Your task to perform on an android device: Open maps Image 0: 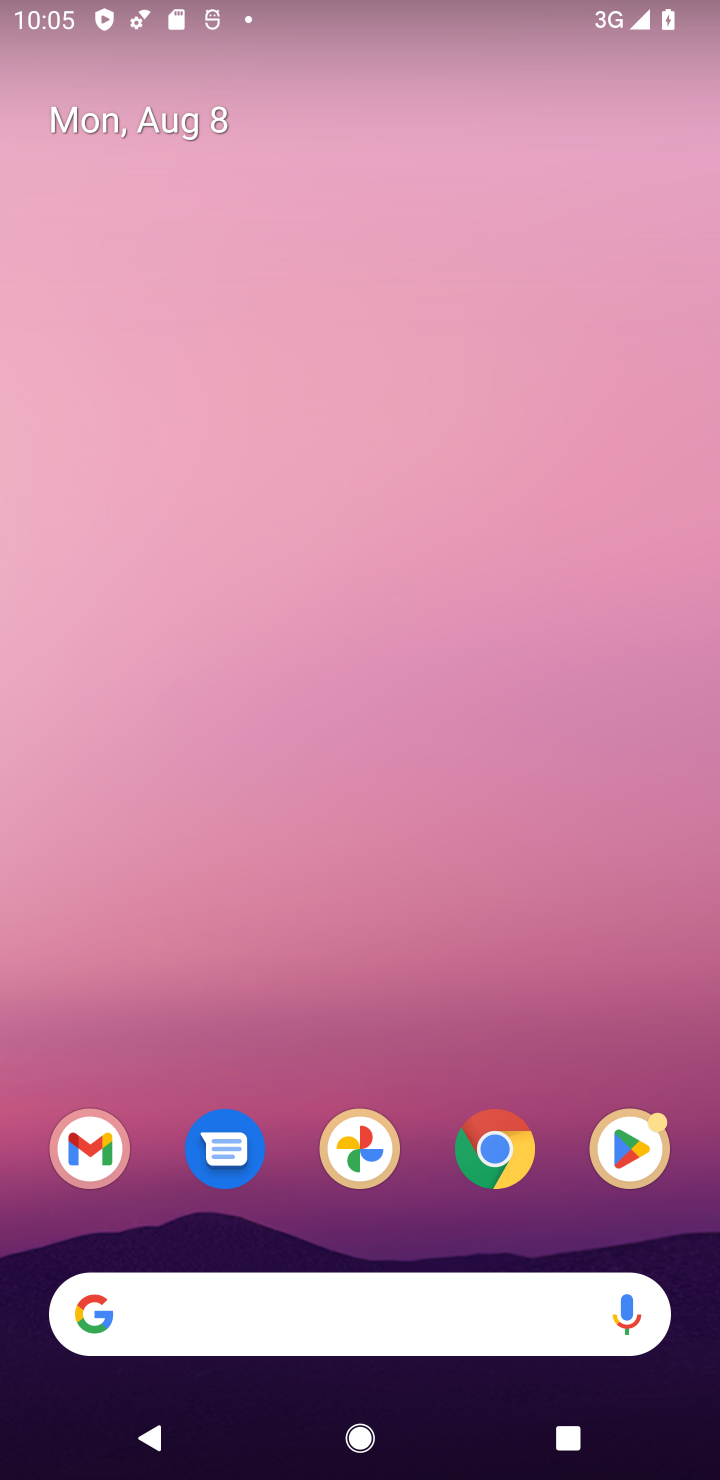
Step 0: drag from (362, 1083) to (267, 520)
Your task to perform on an android device: Open maps Image 1: 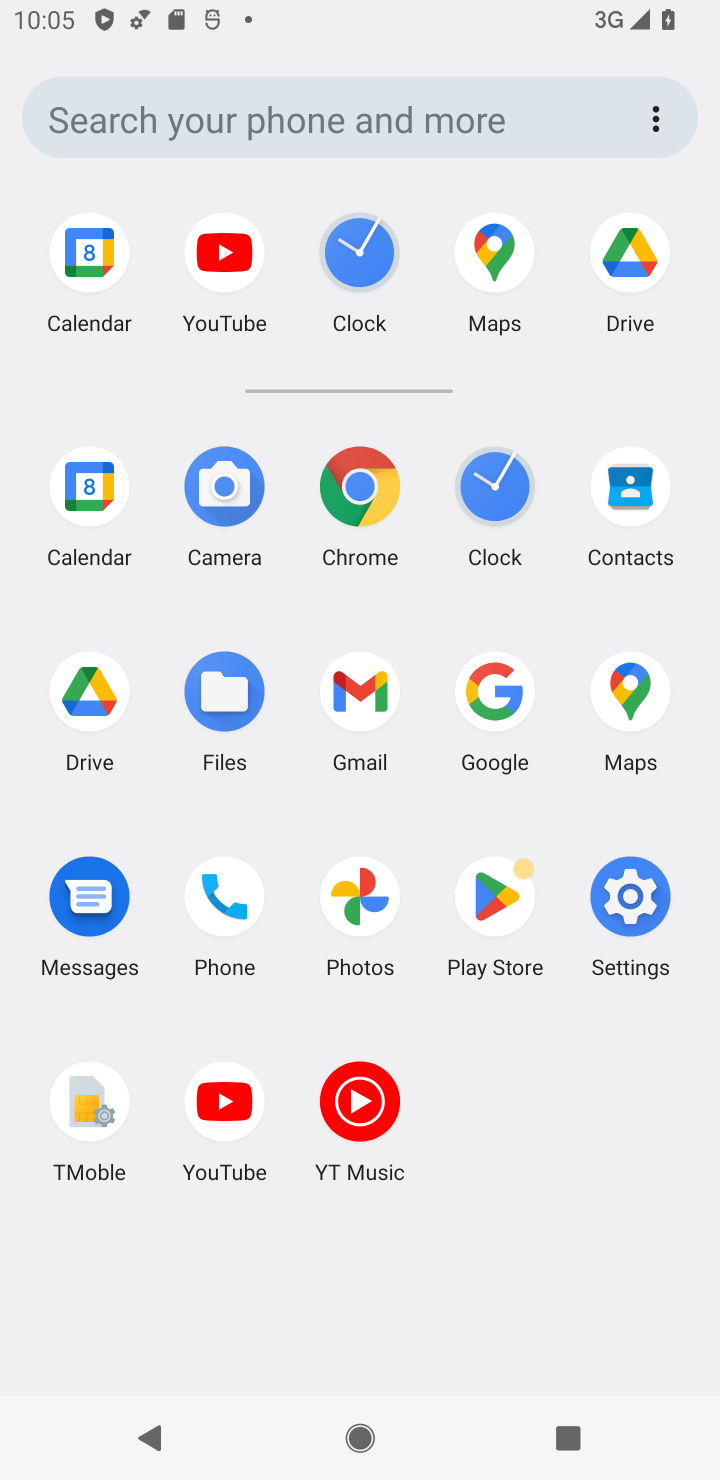
Step 1: click (619, 696)
Your task to perform on an android device: Open maps Image 2: 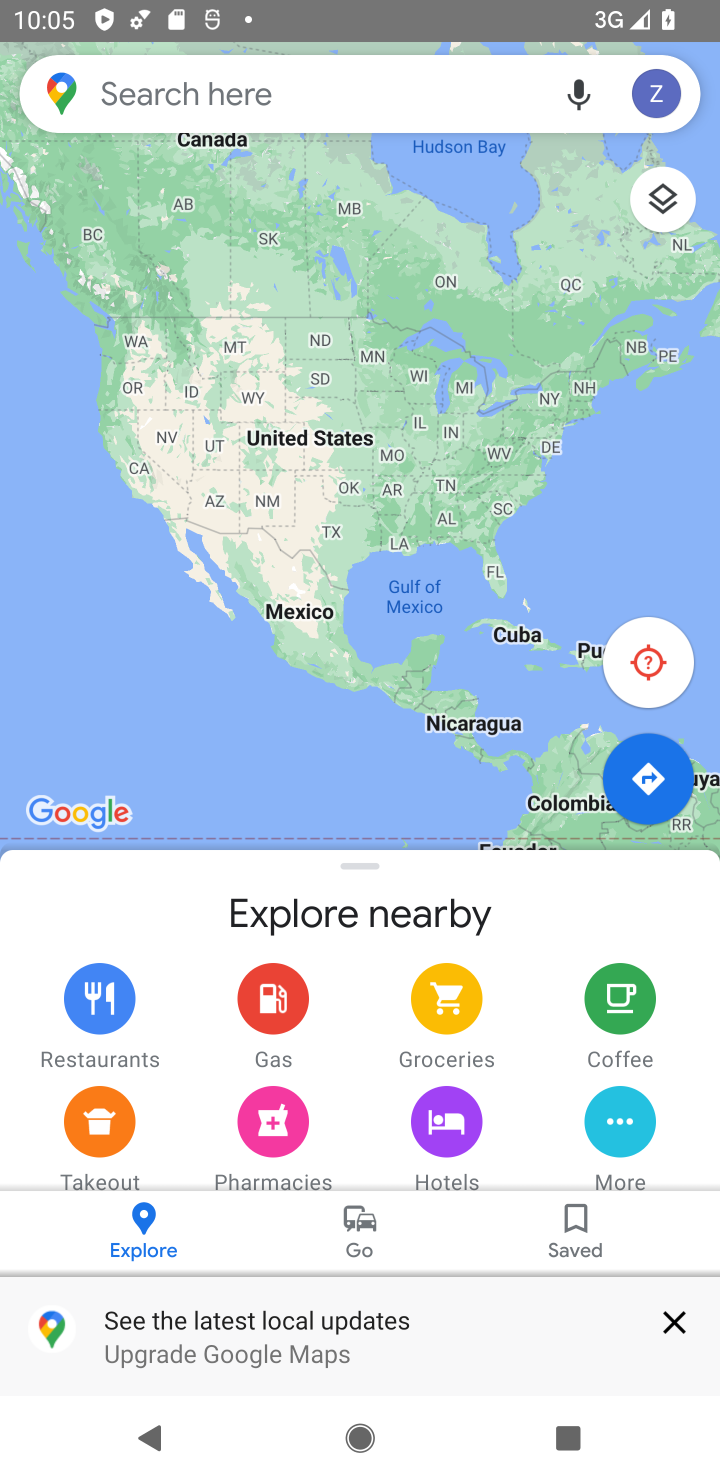
Step 2: task complete